Your task to perform on an android device: toggle sleep mode Image 0: 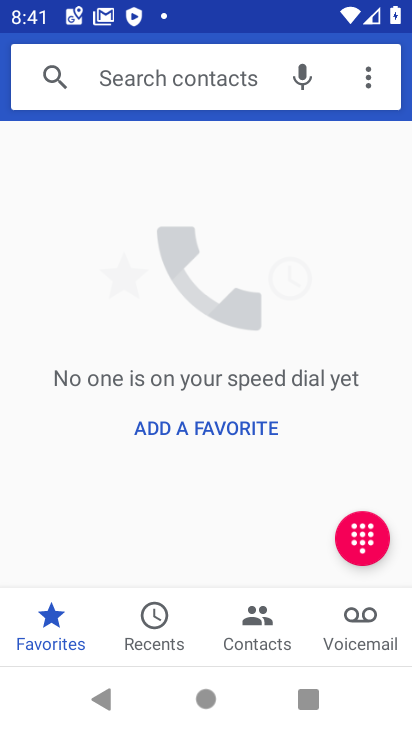
Step 0: press home button
Your task to perform on an android device: toggle sleep mode Image 1: 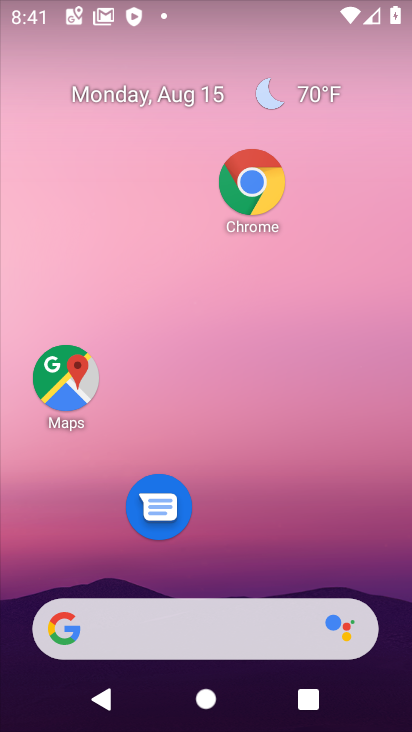
Step 1: drag from (312, 568) to (197, 95)
Your task to perform on an android device: toggle sleep mode Image 2: 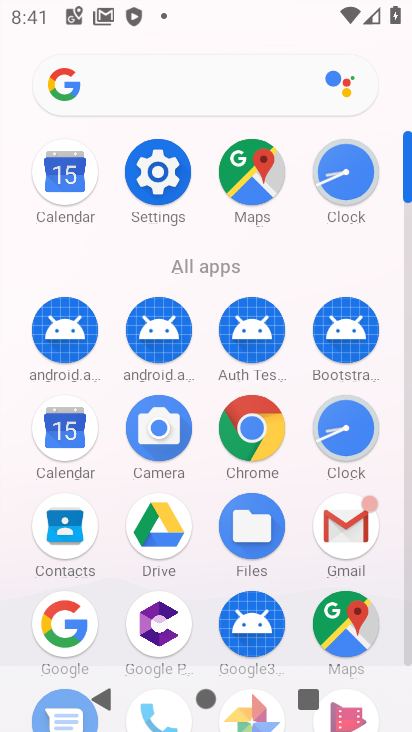
Step 2: click (139, 205)
Your task to perform on an android device: toggle sleep mode Image 3: 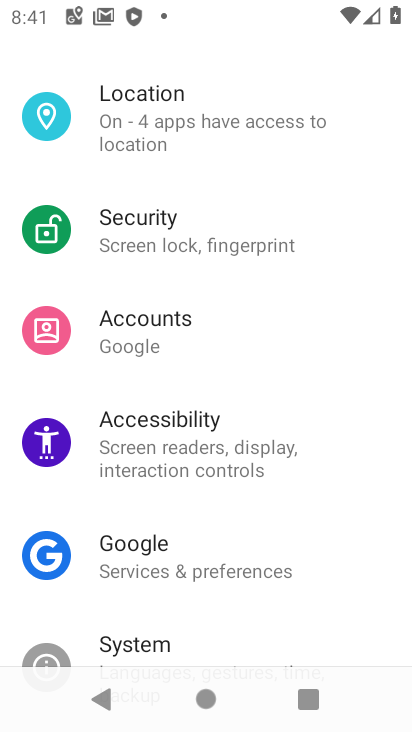
Step 3: drag from (183, 350) to (298, 707)
Your task to perform on an android device: toggle sleep mode Image 4: 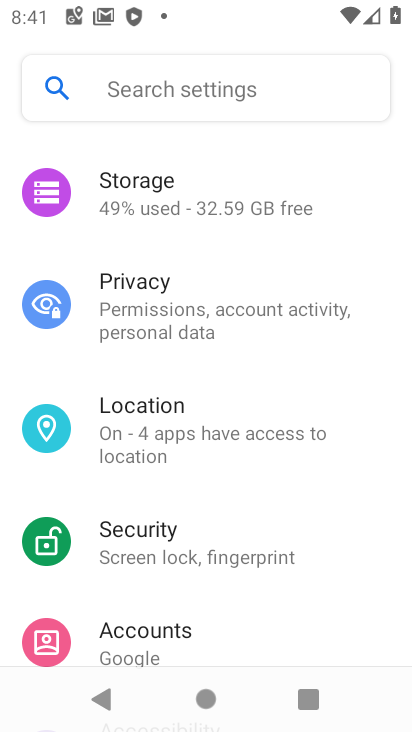
Step 4: drag from (250, 331) to (311, 712)
Your task to perform on an android device: toggle sleep mode Image 5: 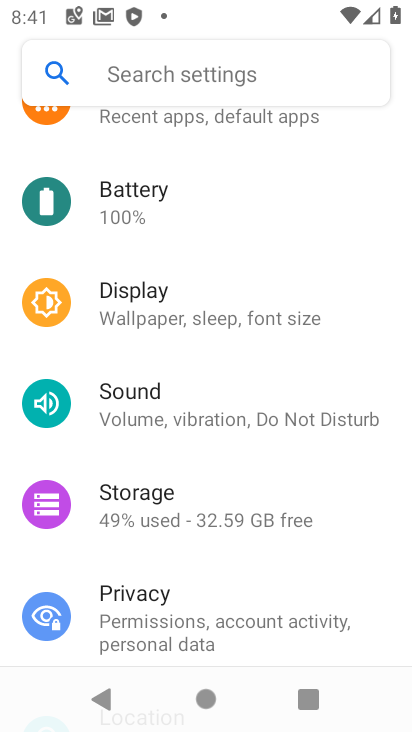
Step 5: drag from (248, 202) to (329, 430)
Your task to perform on an android device: toggle sleep mode Image 6: 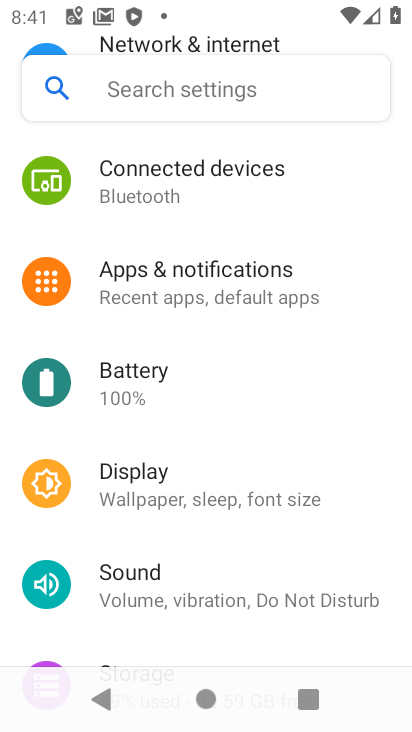
Step 6: click (283, 502)
Your task to perform on an android device: toggle sleep mode Image 7: 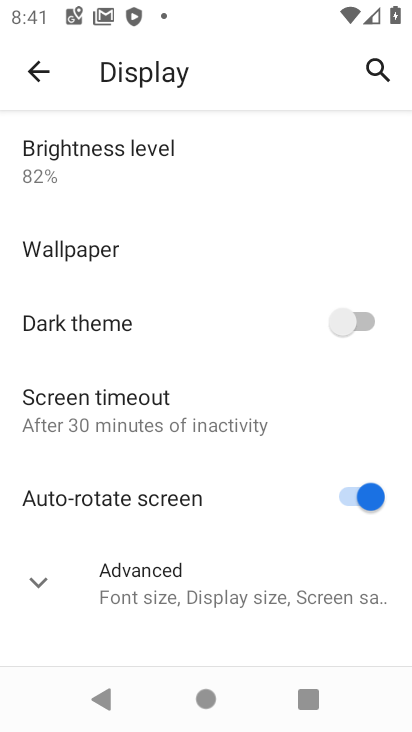
Step 7: click (282, 416)
Your task to perform on an android device: toggle sleep mode Image 8: 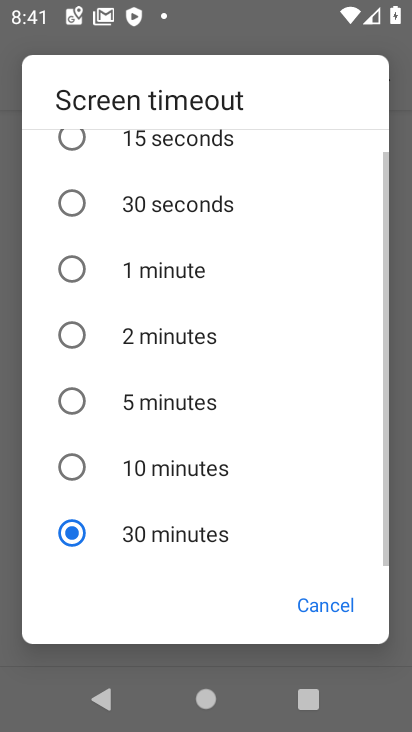
Step 8: click (173, 196)
Your task to perform on an android device: toggle sleep mode Image 9: 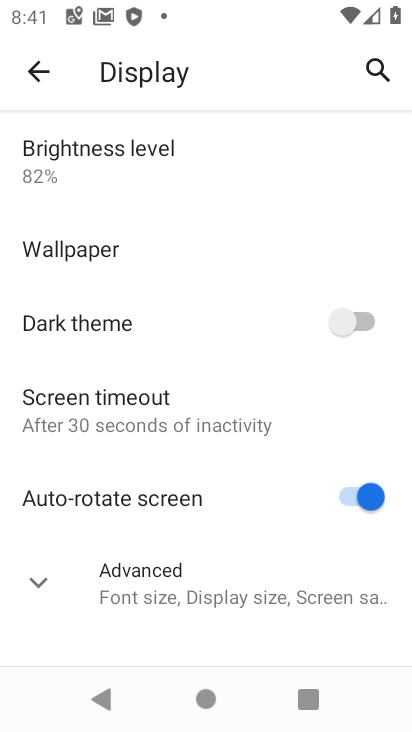
Step 9: task complete